Your task to perform on an android device: Open Chrome and go to settings Image 0: 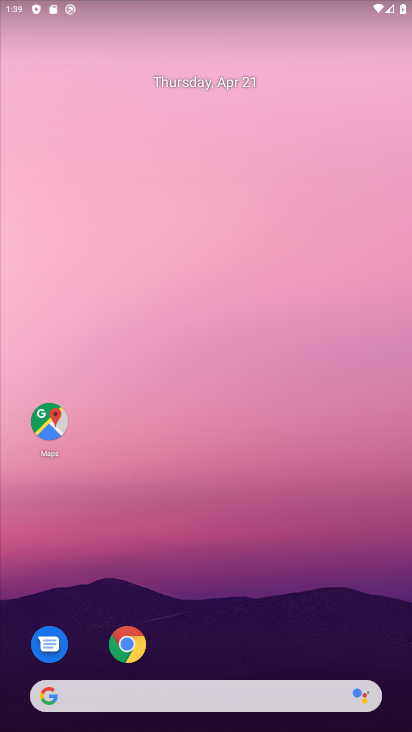
Step 0: drag from (254, 626) to (189, 83)
Your task to perform on an android device: Open Chrome and go to settings Image 1: 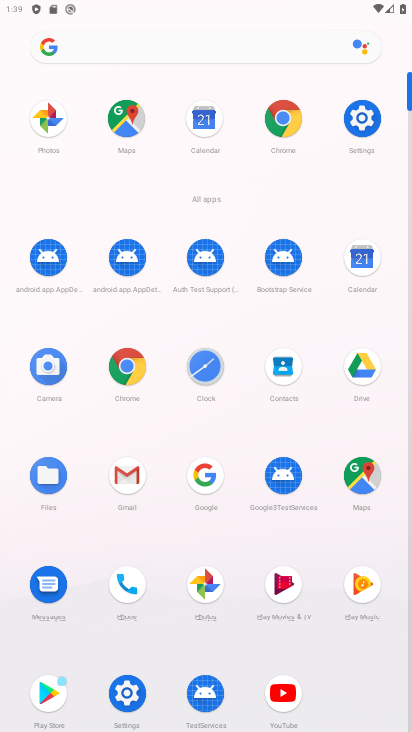
Step 1: click (286, 133)
Your task to perform on an android device: Open Chrome and go to settings Image 2: 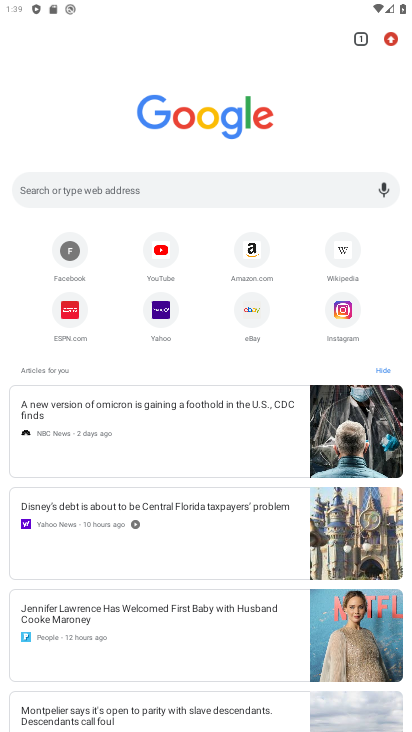
Step 2: task complete